Your task to perform on an android device: toggle translation in the chrome app Image 0: 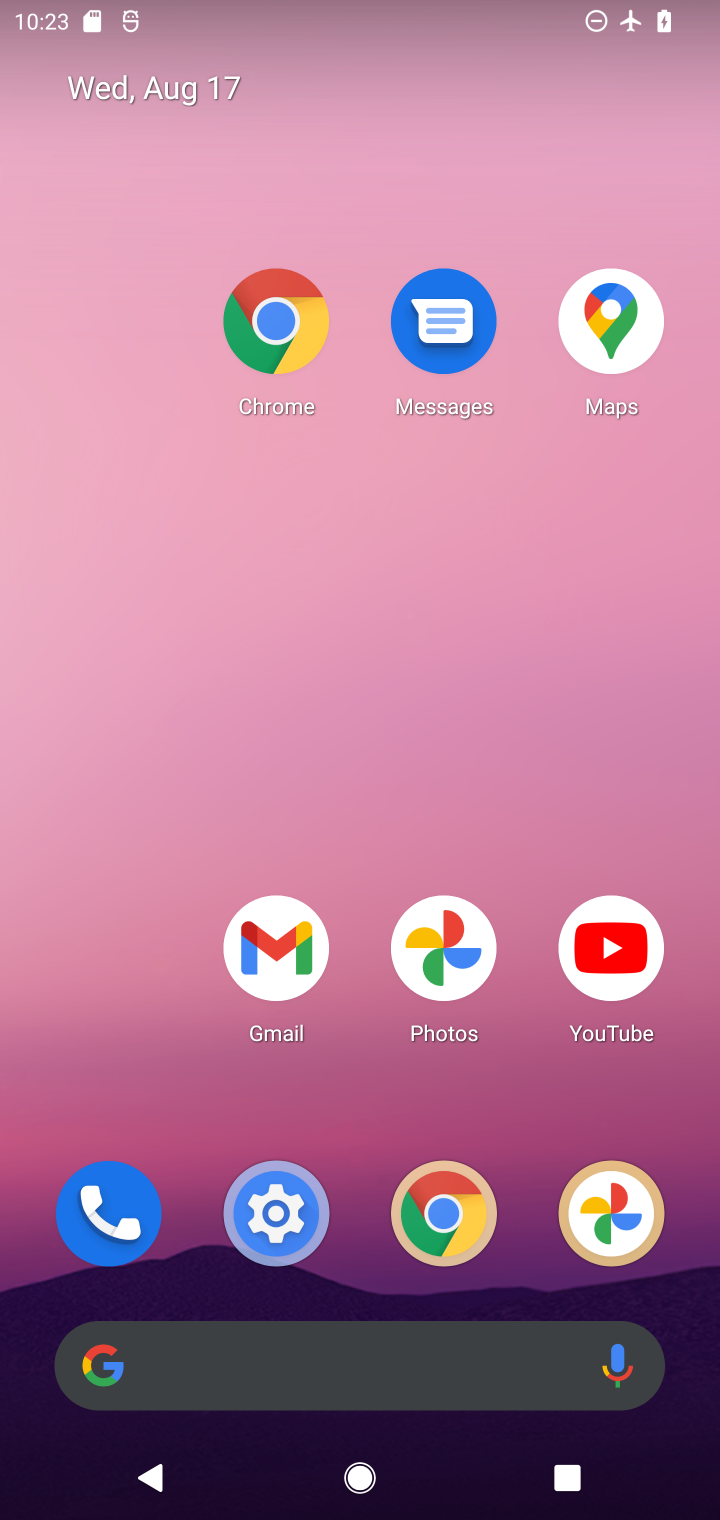
Step 0: click (464, 1196)
Your task to perform on an android device: toggle translation in the chrome app Image 1: 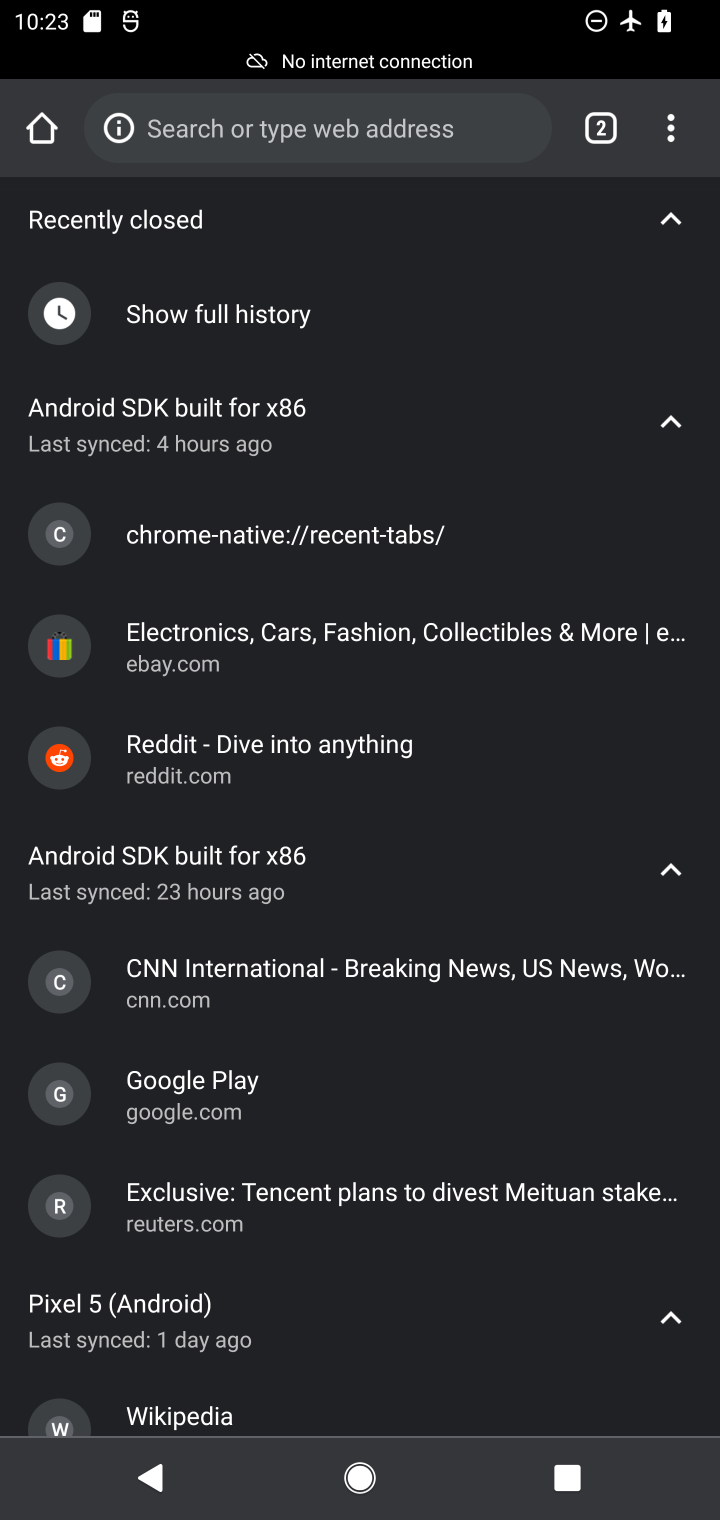
Step 1: click (683, 120)
Your task to perform on an android device: toggle translation in the chrome app Image 2: 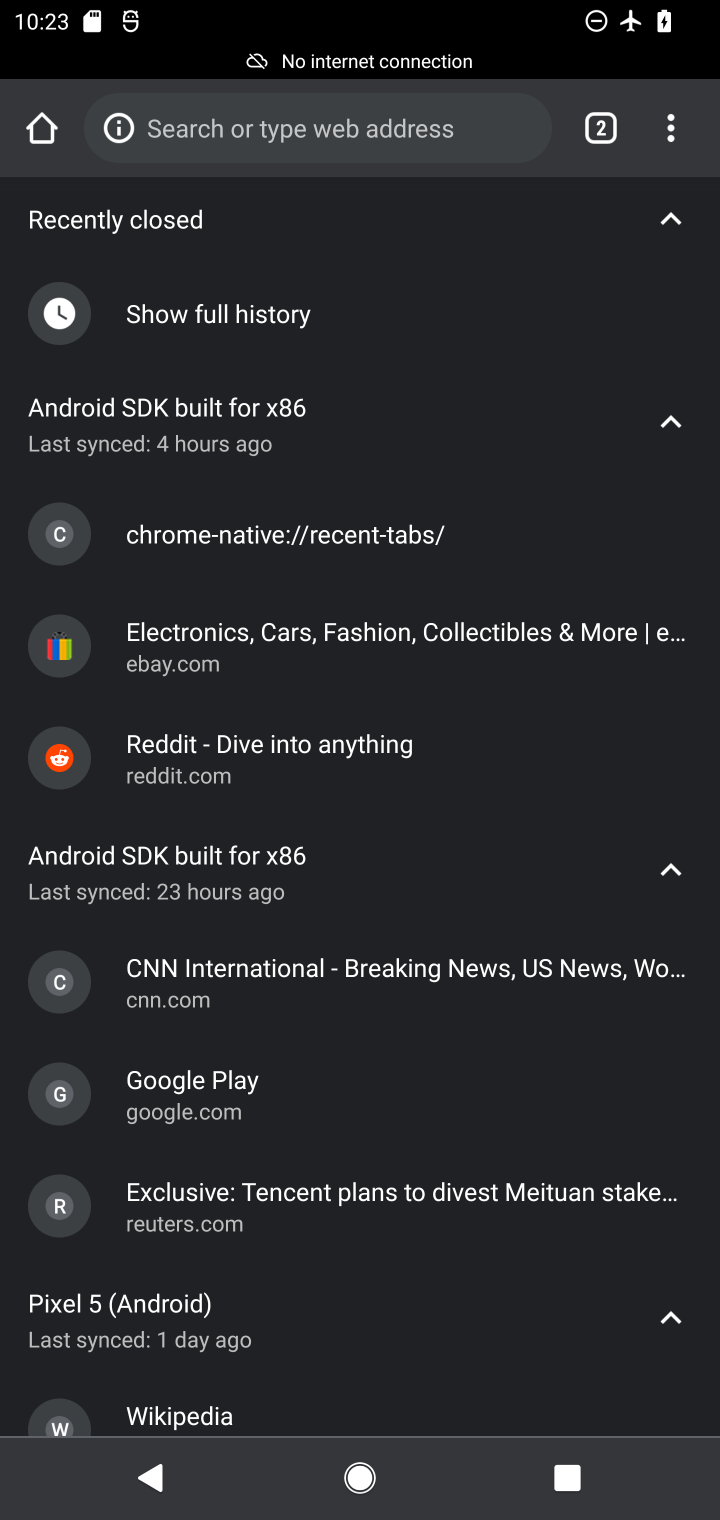
Step 2: click (672, 148)
Your task to perform on an android device: toggle translation in the chrome app Image 3: 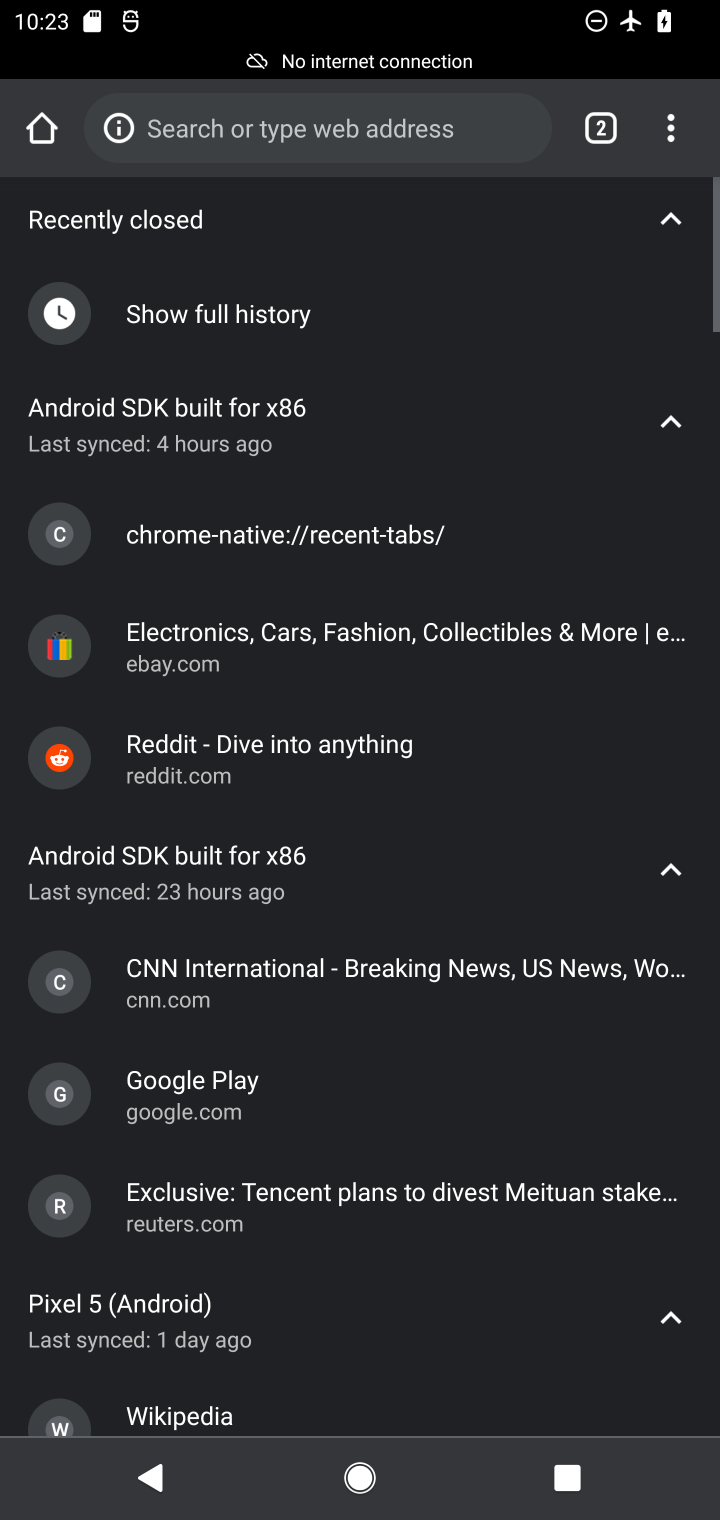
Step 3: click (672, 148)
Your task to perform on an android device: toggle translation in the chrome app Image 4: 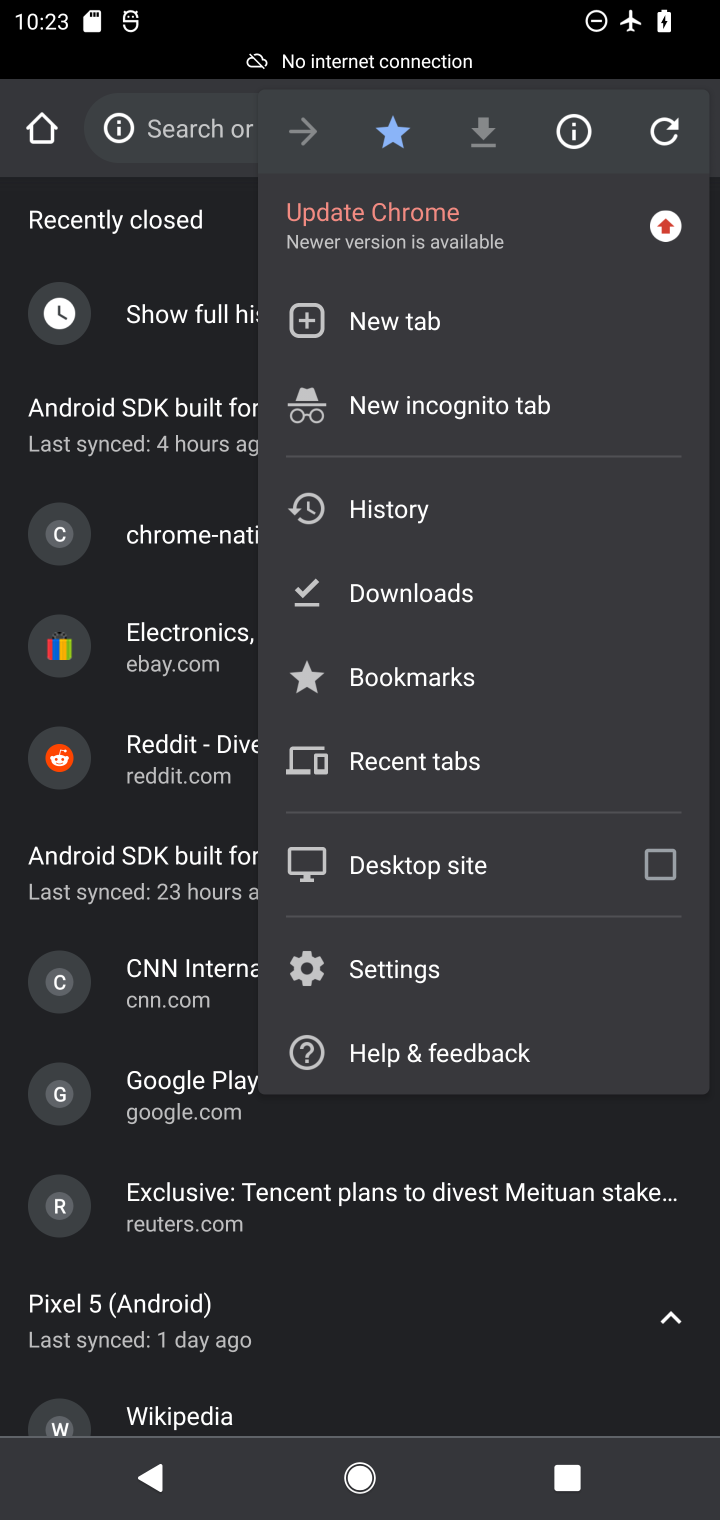
Step 4: click (492, 987)
Your task to perform on an android device: toggle translation in the chrome app Image 5: 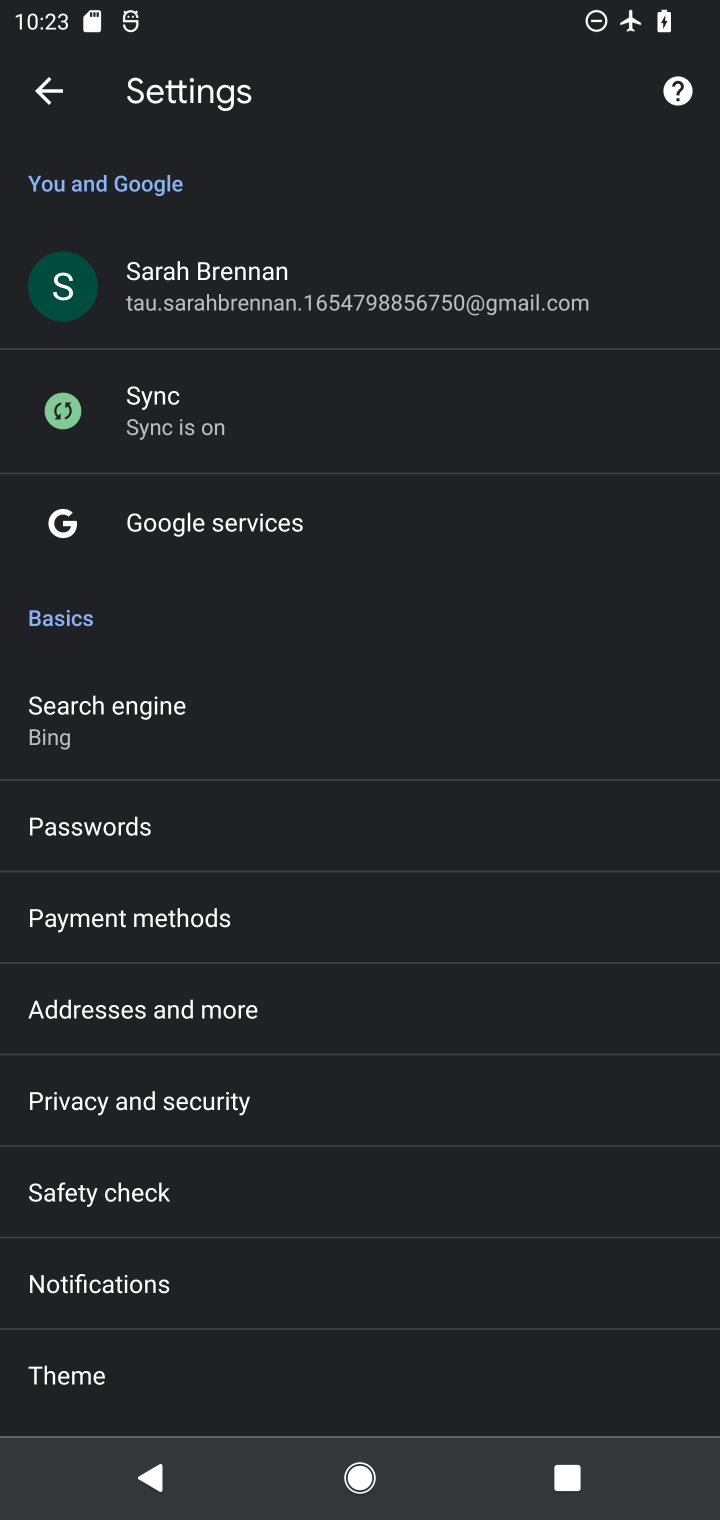
Step 5: drag from (232, 1058) to (230, 379)
Your task to perform on an android device: toggle translation in the chrome app Image 6: 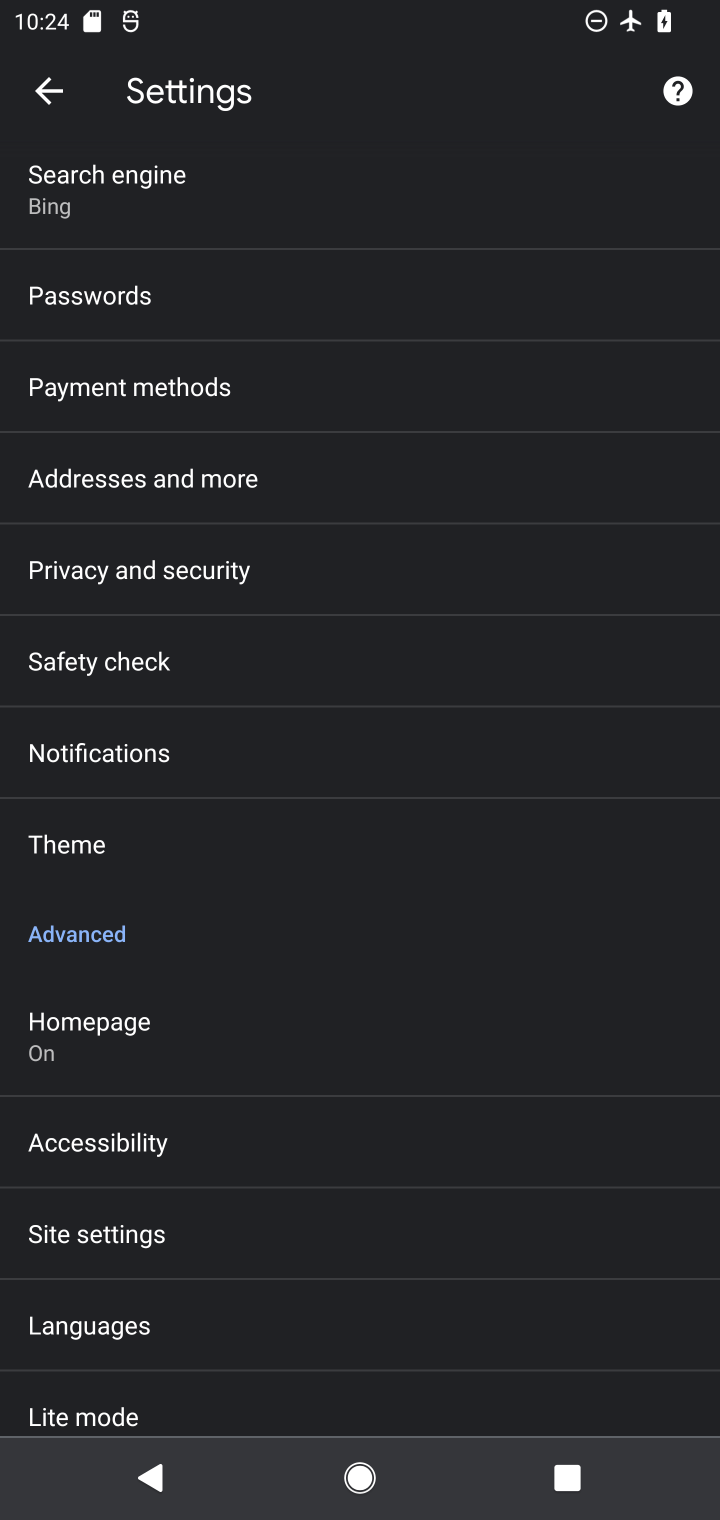
Step 6: click (279, 1247)
Your task to perform on an android device: toggle translation in the chrome app Image 7: 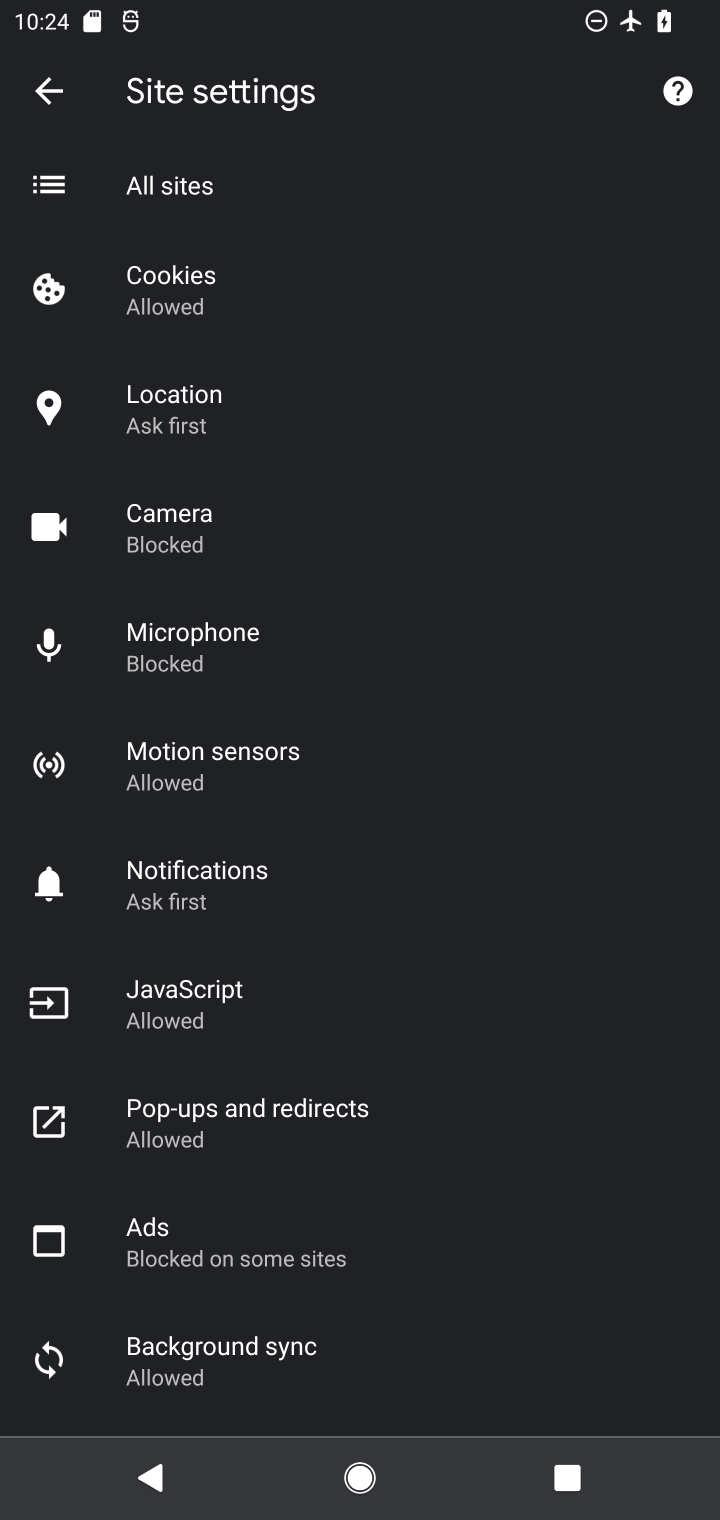
Step 7: task complete